Your task to perform on an android device: Do I have any events today? Image 0: 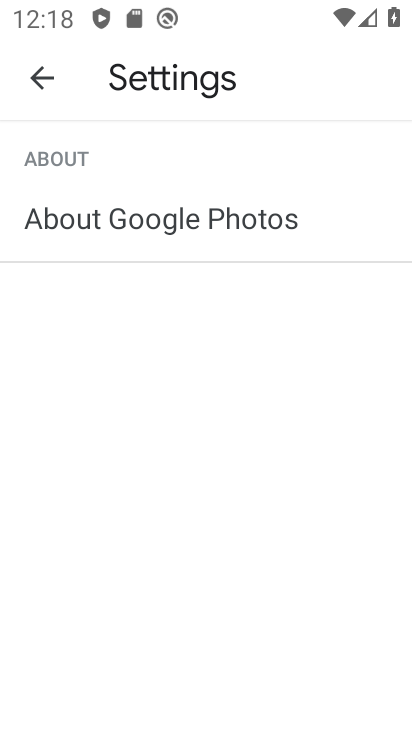
Step 0: press home button
Your task to perform on an android device: Do I have any events today? Image 1: 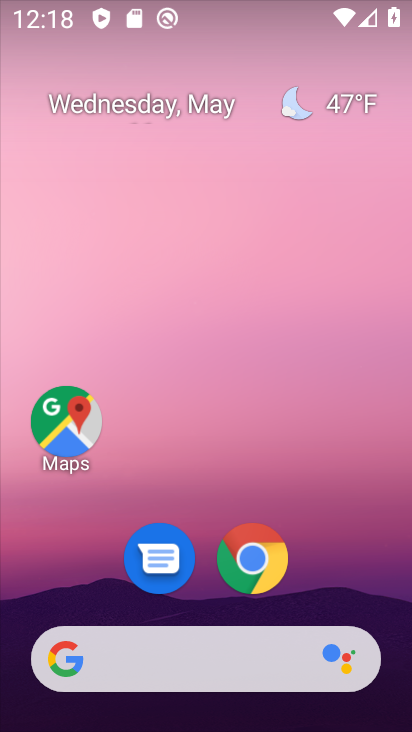
Step 1: drag from (213, 703) to (212, 129)
Your task to perform on an android device: Do I have any events today? Image 2: 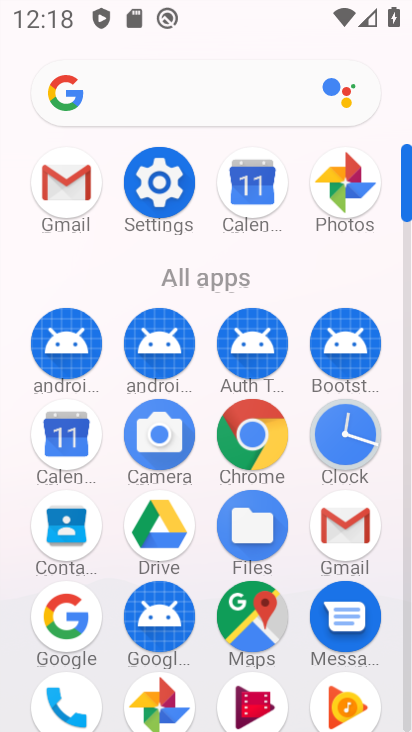
Step 2: click (66, 433)
Your task to perform on an android device: Do I have any events today? Image 3: 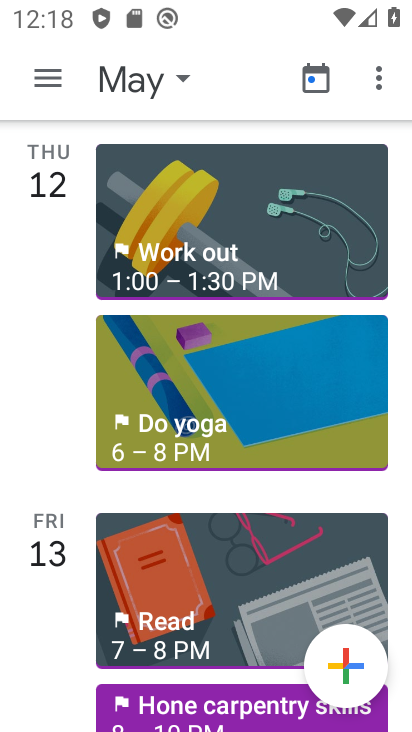
Step 3: click (55, 74)
Your task to perform on an android device: Do I have any events today? Image 4: 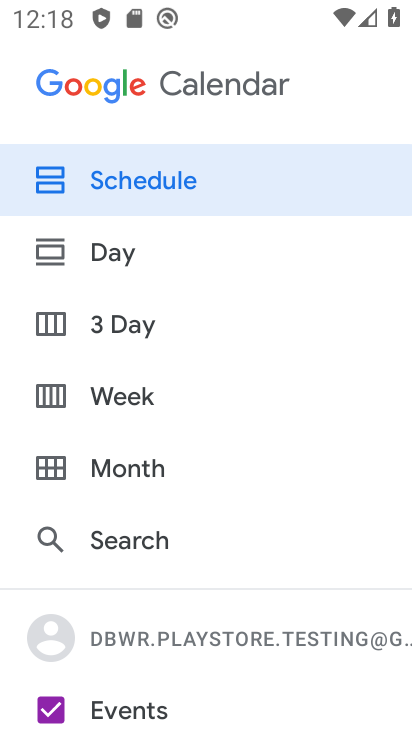
Step 4: drag from (142, 674) to (137, 210)
Your task to perform on an android device: Do I have any events today? Image 5: 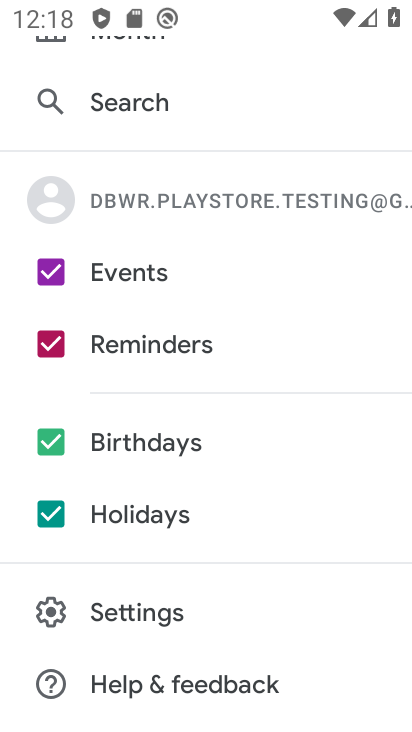
Step 5: click (46, 507)
Your task to perform on an android device: Do I have any events today? Image 6: 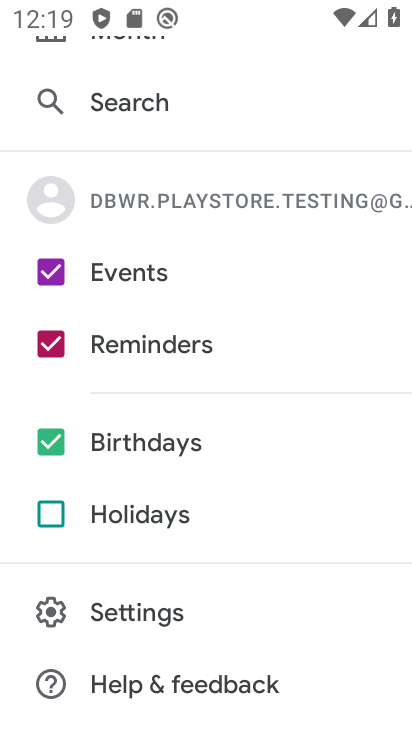
Step 6: click (50, 437)
Your task to perform on an android device: Do I have any events today? Image 7: 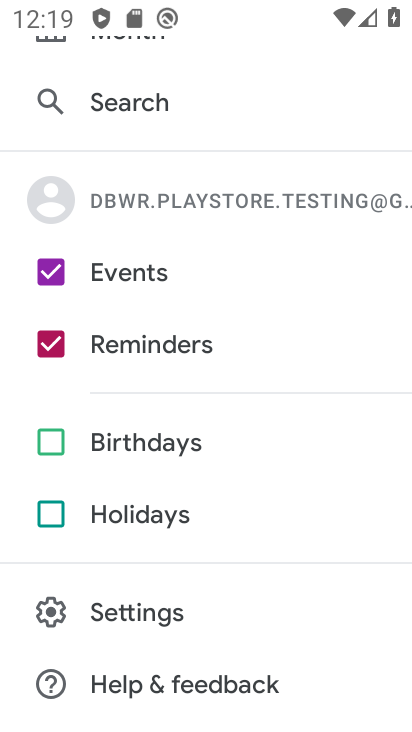
Step 7: click (47, 343)
Your task to perform on an android device: Do I have any events today? Image 8: 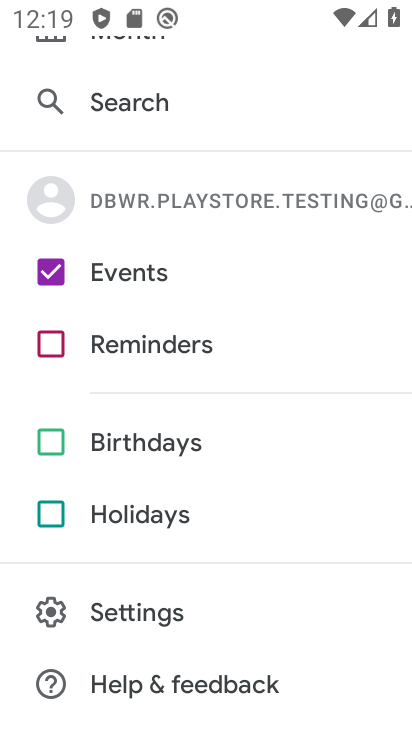
Step 8: drag from (277, 197) to (312, 633)
Your task to perform on an android device: Do I have any events today? Image 9: 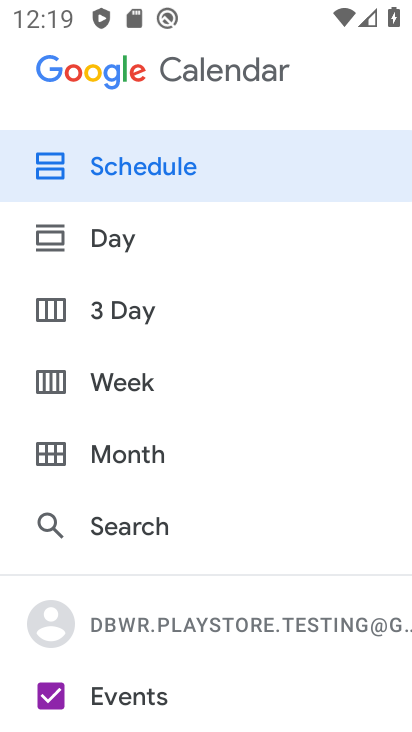
Step 9: click (157, 165)
Your task to perform on an android device: Do I have any events today? Image 10: 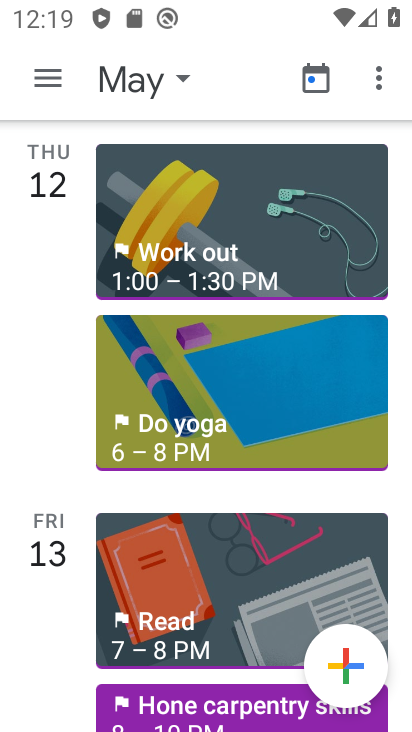
Step 10: click (131, 82)
Your task to perform on an android device: Do I have any events today? Image 11: 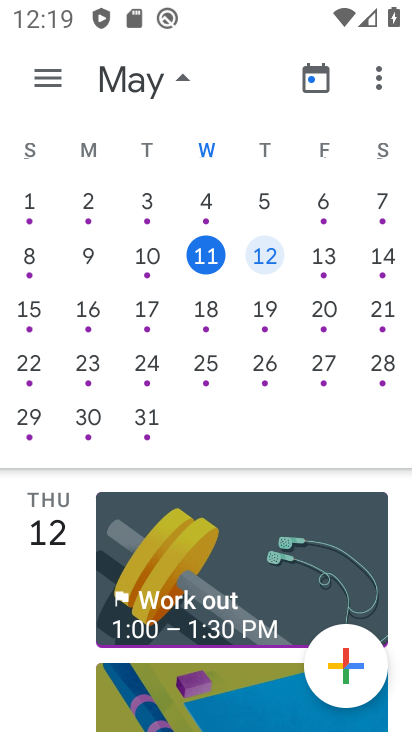
Step 11: click (202, 257)
Your task to perform on an android device: Do I have any events today? Image 12: 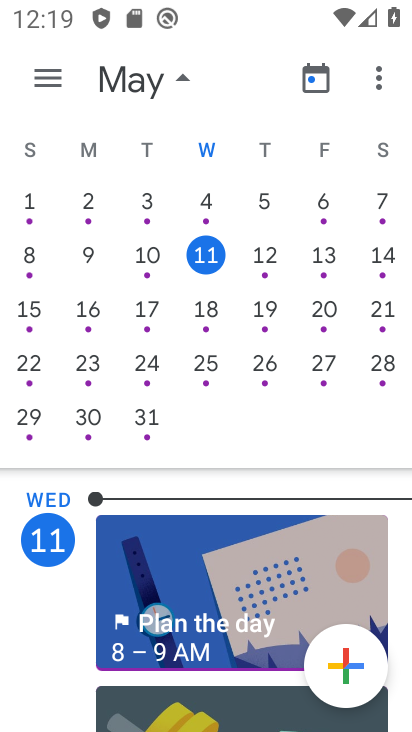
Step 12: click (184, 81)
Your task to perform on an android device: Do I have any events today? Image 13: 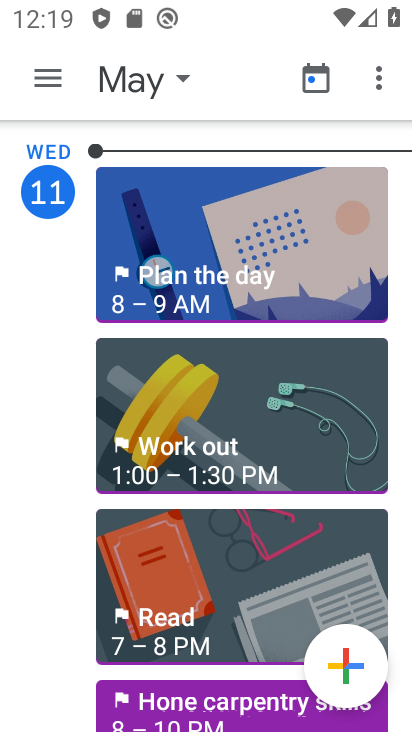
Step 13: task complete